Your task to perform on an android device: check data usage Image 0: 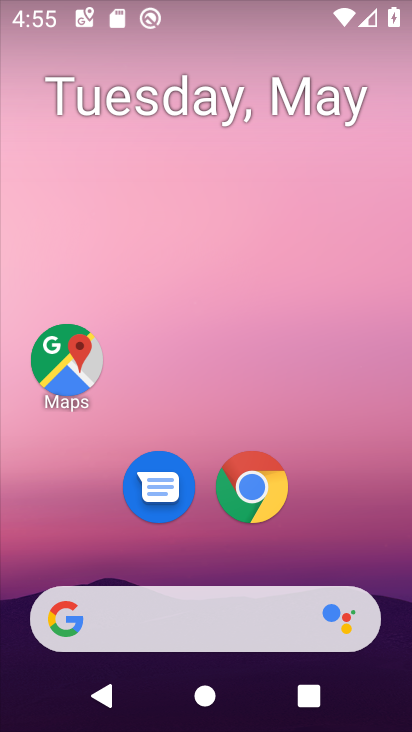
Step 0: drag from (293, 552) to (281, 160)
Your task to perform on an android device: check data usage Image 1: 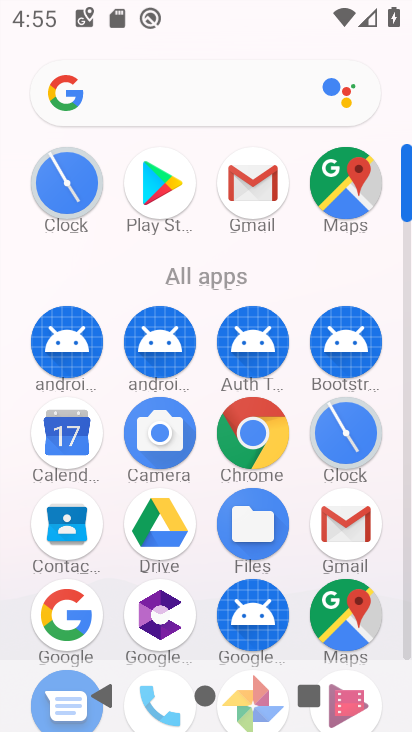
Step 1: drag from (333, 713) to (276, 13)
Your task to perform on an android device: check data usage Image 2: 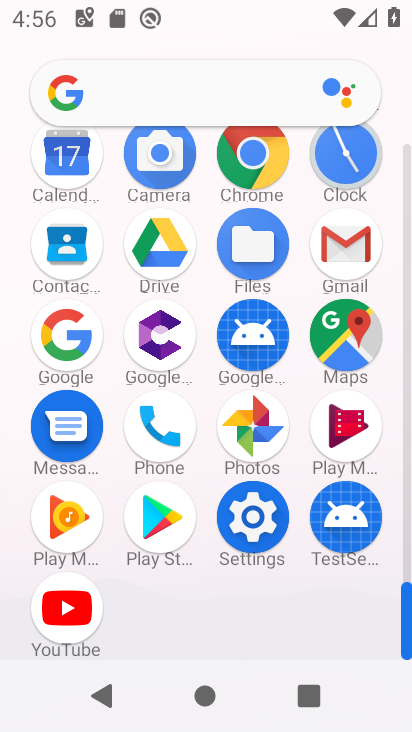
Step 2: click (249, 511)
Your task to perform on an android device: check data usage Image 3: 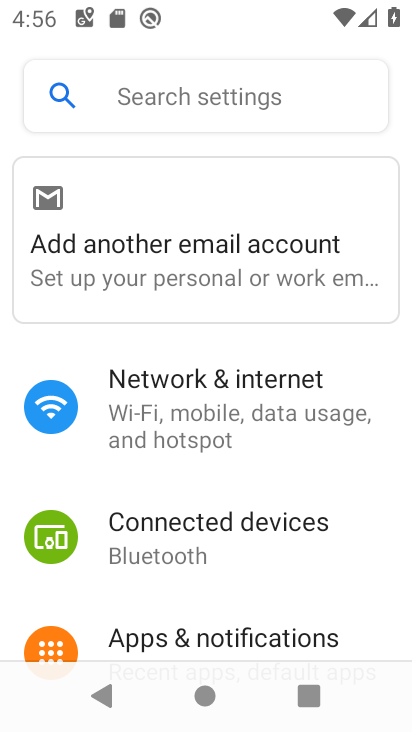
Step 3: click (197, 265)
Your task to perform on an android device: check data usage Image 4: 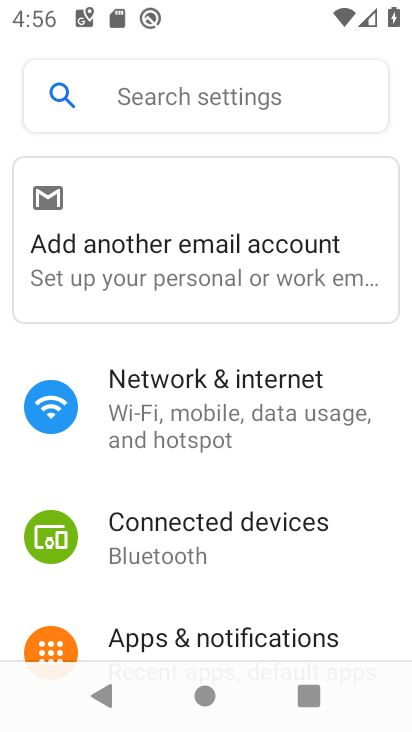
Step 4: click (198, 365)
Your task to perform on an android device: check data usage Image 5: 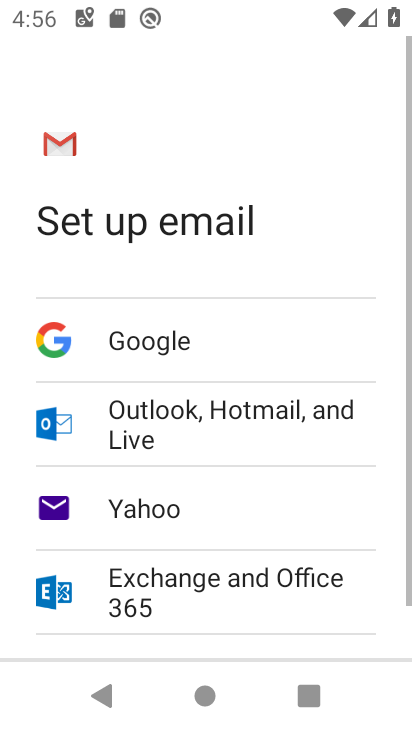
Step 5: click (85, 711)
Your task to perform on an android device: check data usage Image 6: 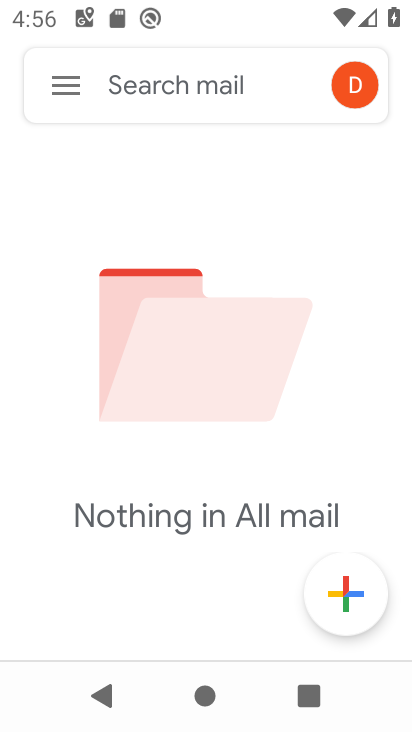
Step 6: click (94, 704)
Your task to perform on an android device: check data usage Image 7: 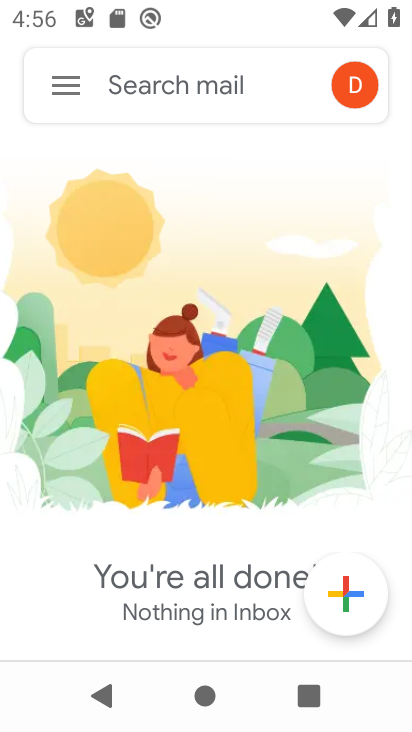
Step 7: click (96, 696)
Your task to perform on an android device: check data usage Image 8: 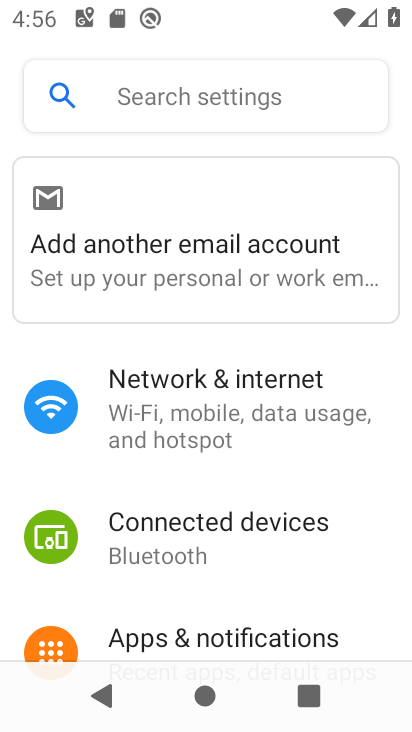
Step 8: click (164, 407)
Your task to perform on an android device: check data usage Image 9: 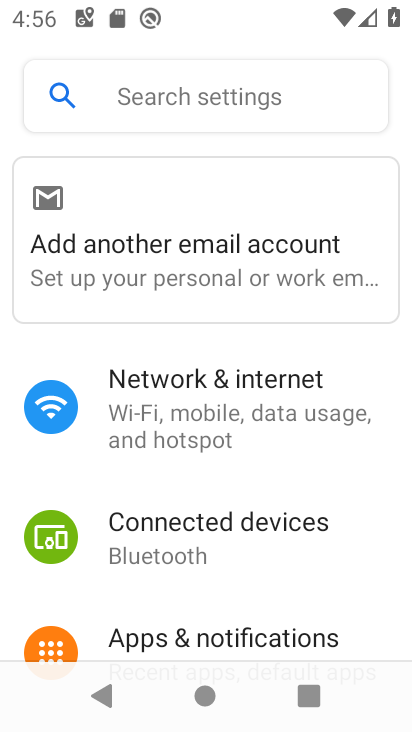
Step 9: task complete